Your task to perform on an android device: Open sound settings Image 0: 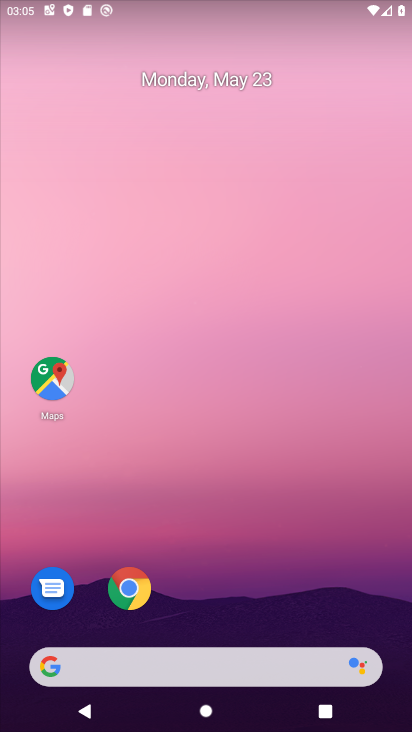
Step 0: drag from (230, 726) to (222, 128)
Your task to perform on an android device: Open sound settings Image 1: 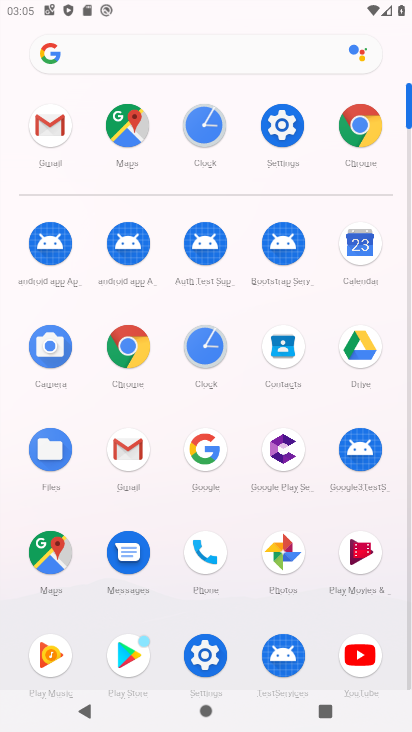
Step 1: click (304, 149)
Your task to perform on an android device: Open sound settings Image 2: 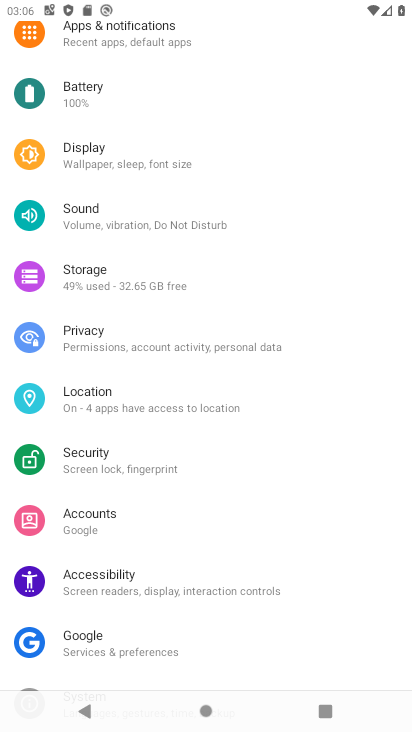
Step 2: click (84, 218)
Your task to perform on an android device: Open sound settings Image 3: 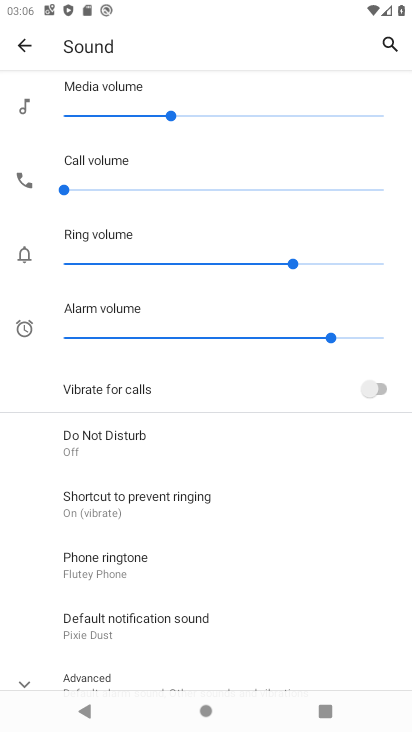
Step 3: task complete